Your task to perform on an android device: make emails show in primary in the gmail app Image 0: 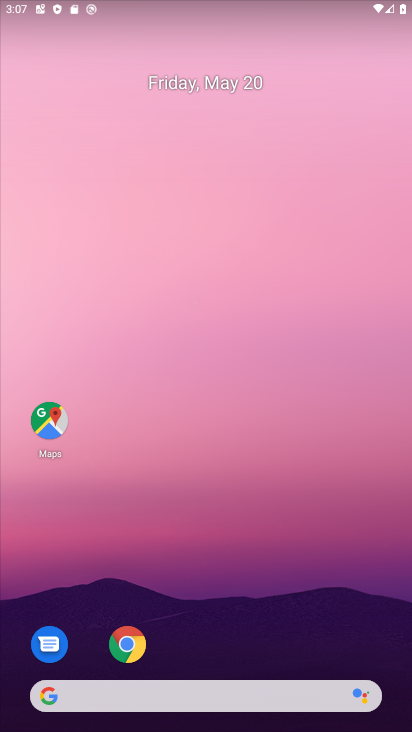
Step 0: drag from (216, 638) to (291, 66)
Your task to perform on an android device: make emails show in primary in the gmail app Image 1: 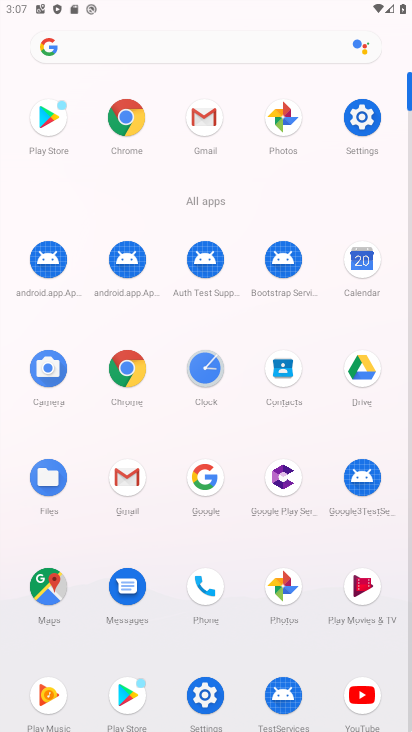
Step 1: click (222, 139)
Your task to perform on an android device: make emails show in primary in the gmail app Image 2: 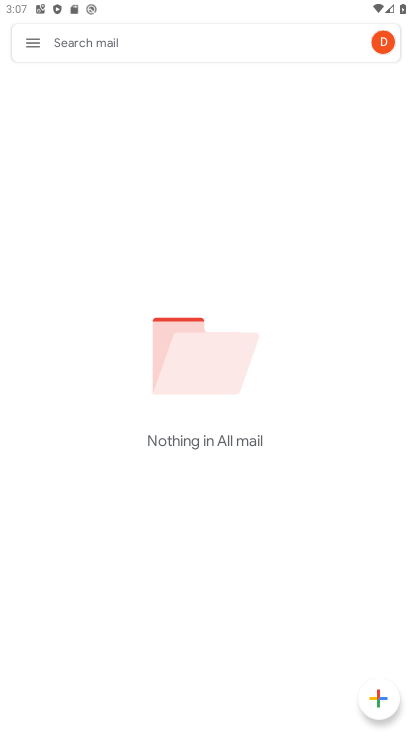
Step 2: task complete